Your task to perform on an android device: turn on data saver in the chrome app Image 0: 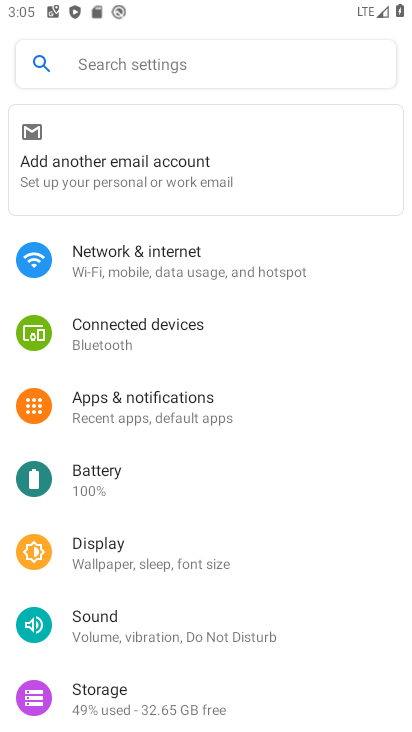
Step 0: press home button
Your task to perform on an android device: turn on data saver in the chrome app Image 1: 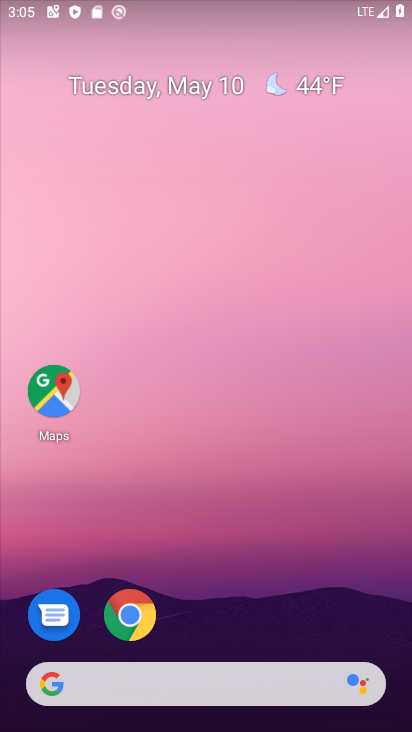
Step 1: click (128, 596)
Your task to perform on an android device: turn on data saver in the chrome app Image 2: 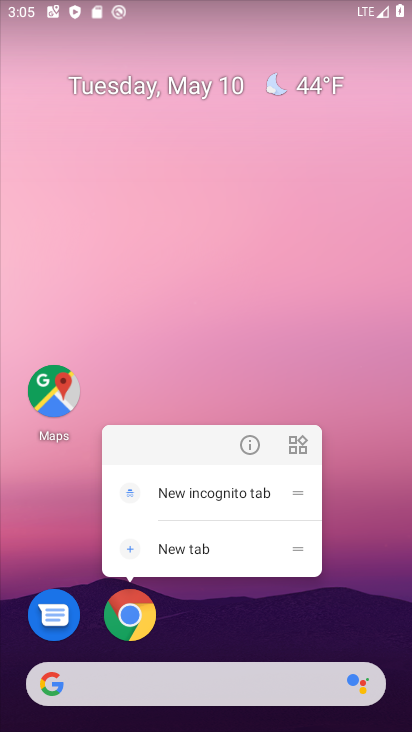
Step 2: drag from (212, 614) to (304, 110)
Your task to perform on an android device: turn on data saver in the chrome app Image 3: 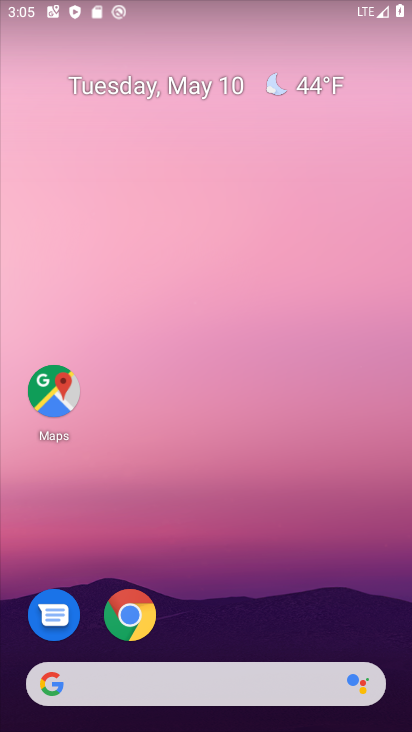
Step 3: drag from (250, 600) to (302, 125)
Your task to perform on an android device: turn on data saver in the chrome app Image 4: 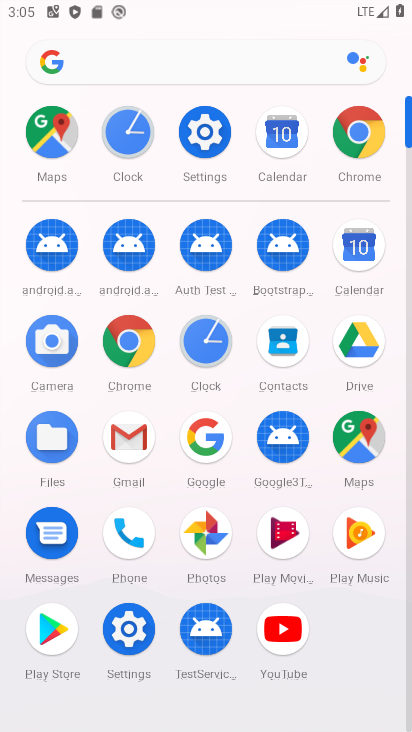
Step 4: click (367, 132)
Your task to perform on an android device: turn on data saver in the chrome app Image 5: 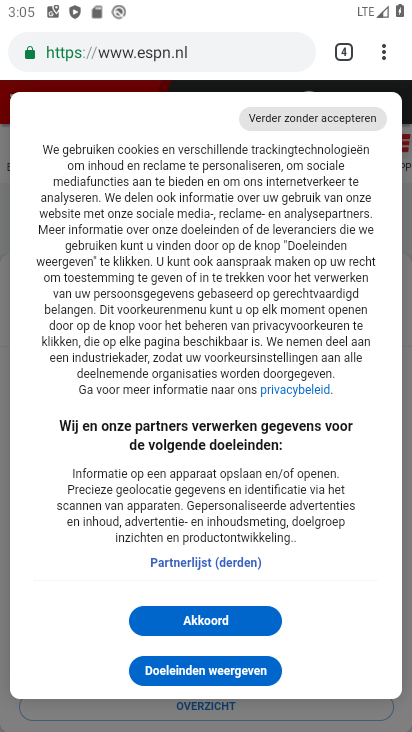
Step 5: drag from (384, 46) to (181, 631)
Your task to perform on an android device: turn on data saver in the chrome app Image 6: 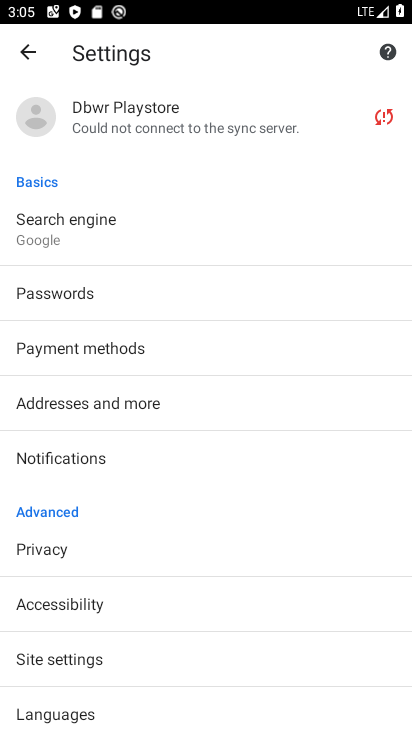
Step 6: drag from (253, 625) to (270, 363)
Your task to perform on an android device: turn on data saver in the chrome app Image 7: 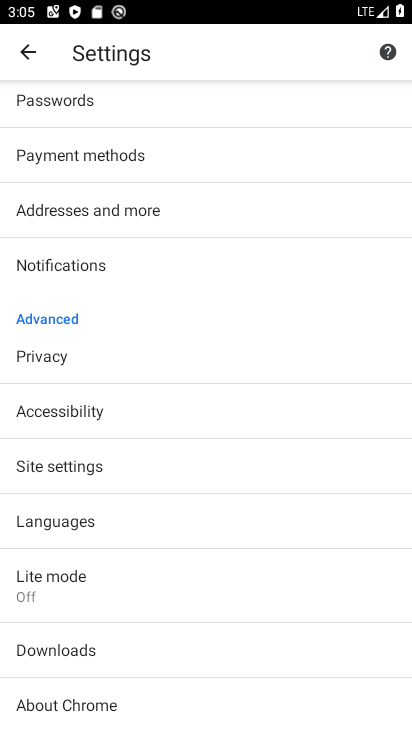
Step 7: click (72, 568)
Your task to perform on an android device: turn on data saver in the chrome app Image 8: 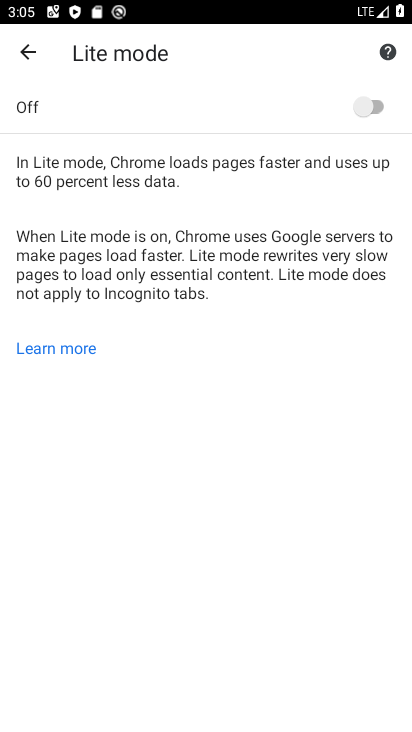
Step 8: click (375, 106)
Your task to perform on an android device: turn on data saver in the chrome app Image 9: 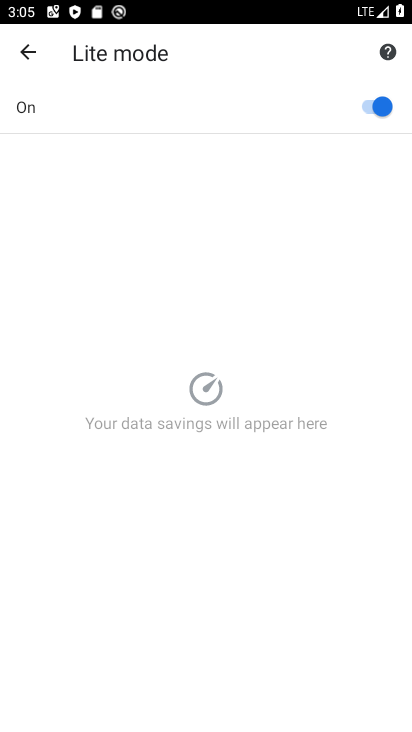
Step 9: task complete